Your task to perform on an android device: empty trash in the gmail app Image 0: 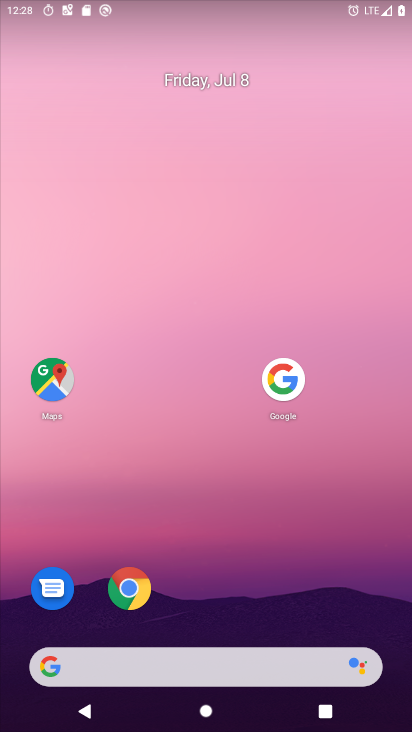
Step 0: drag from (127, 665) to (287, 119)
Your task to perform on an android device: empty trash in the gmail app Image 1: 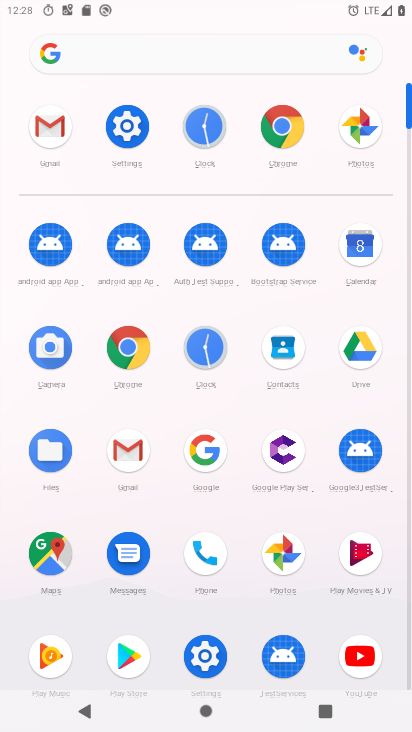
Step 1: click (48, 128)
Your task to perform on an android device: empty trash in the gmail app Image 2: 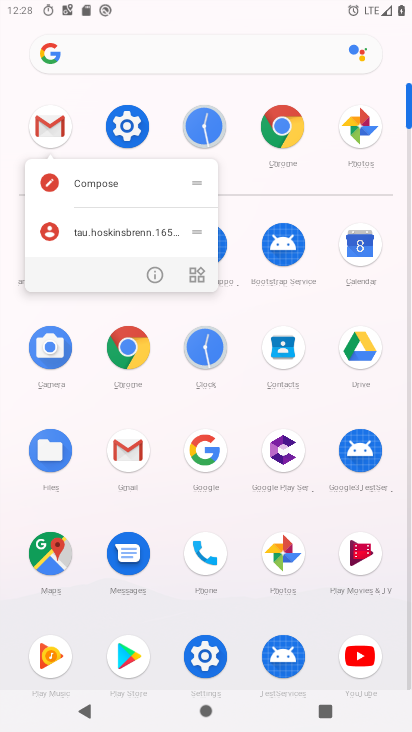
Step 2: click (48, 128)
Your task to perform on an android device: empty trash in the gmail app Image 3: 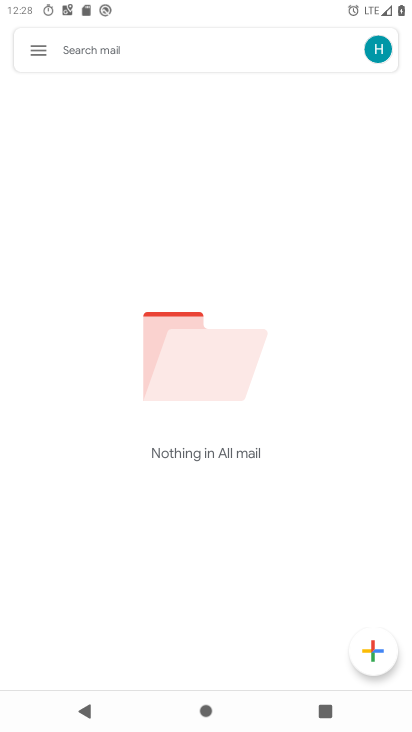
Step 3: click (32, 48)
Your task to perform on an android device: empty trash in the gmail app Image 4: 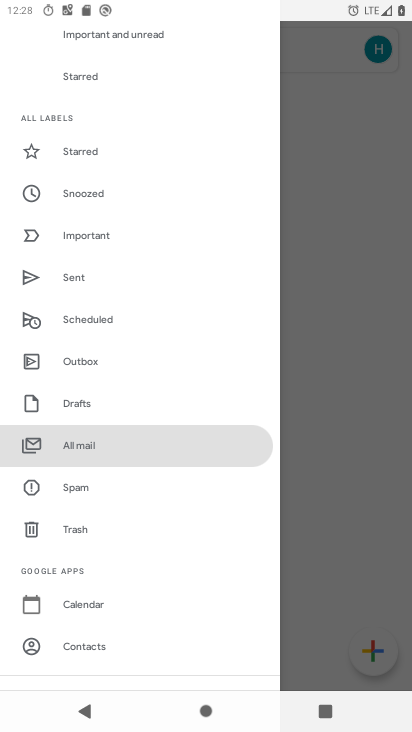
Step 4: click (83, 533)
Your task to perform on an android device: empty trash in the gmail app Image 5: 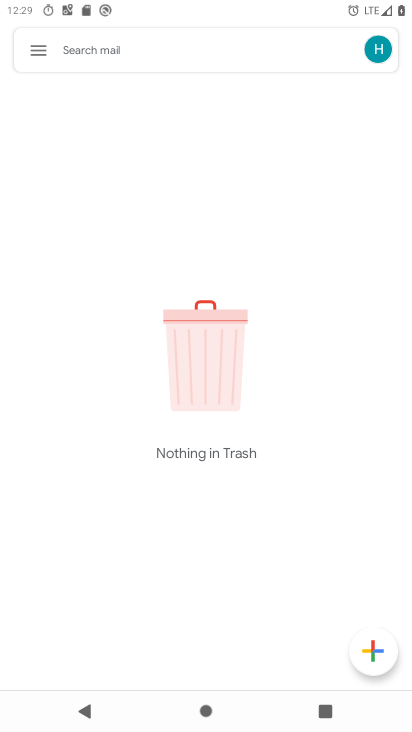
Step 5: task complete